Your task to perform on an android device: Set the phone to "Do not disturb". Image 0: 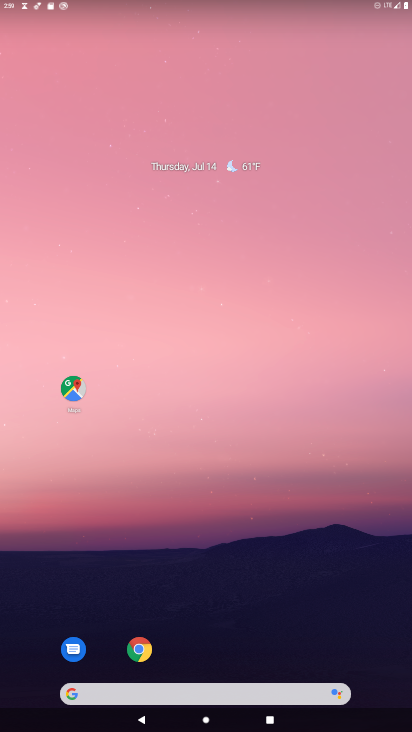
Step 0: drag from (193, 677) to (410, 454)
Your task to perform on an android device: Set the phone to "Do not disturb". Image 1: 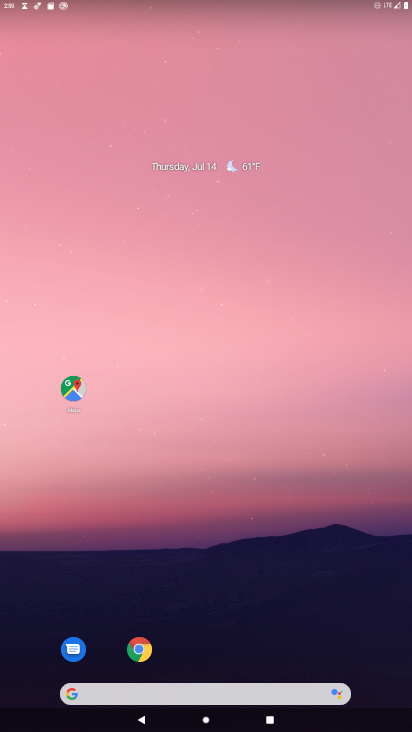
Step 1: click (208, 391)
Your task to perform on an android device: Set the phone to "Do not disturb". Image 2: 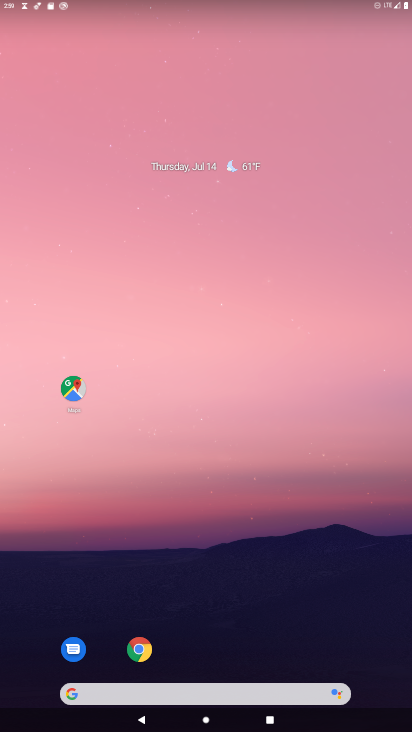
Step 2: drag from (249, 679) to (247, 84)
Your task to perform on an android device: Set the phone to "Do not disturb". Image 3: 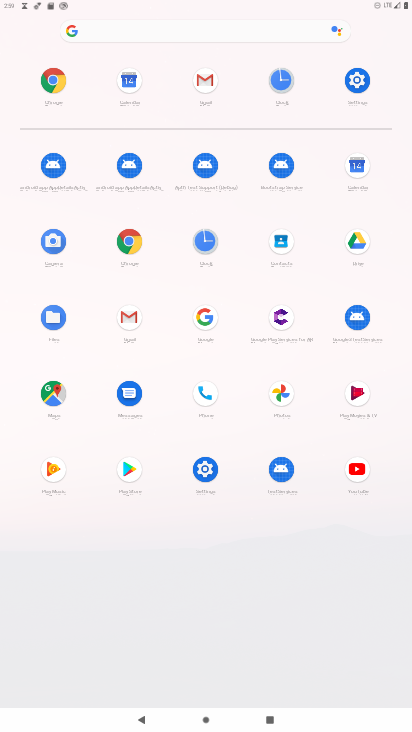
Step 3: click (350, 79)
Your task to perform on an android device: Set the phone to "Do not disturb". Image 4: 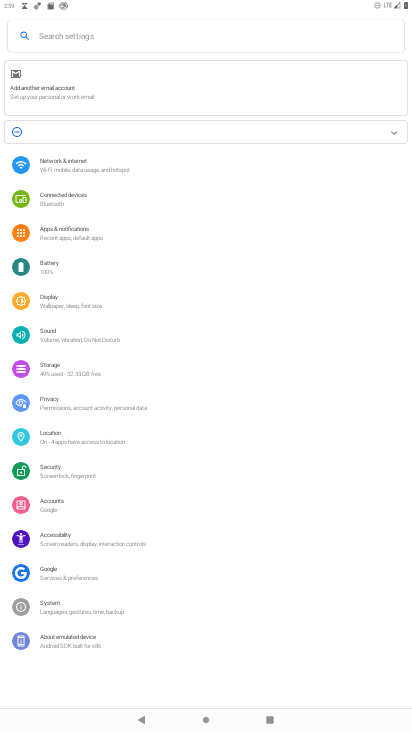
Step 4: click (78, 336)
Your task to perform on an android device: Set the phone to "Do not disturb". Image 5: 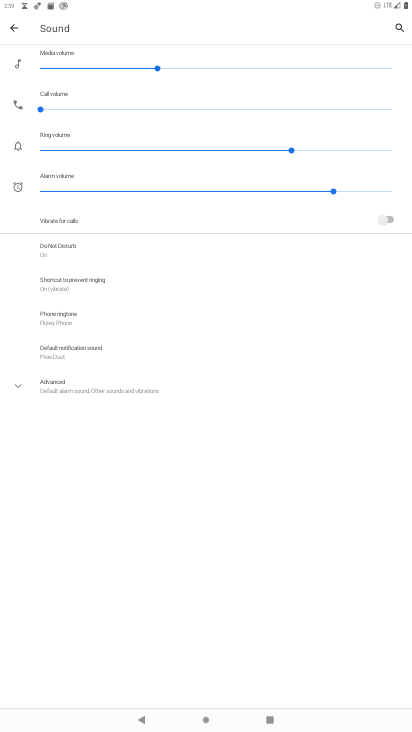
Step 5: click (68, 243)
Your task to perform on an android device: Set the phone to "Do not disturb". Image 6: 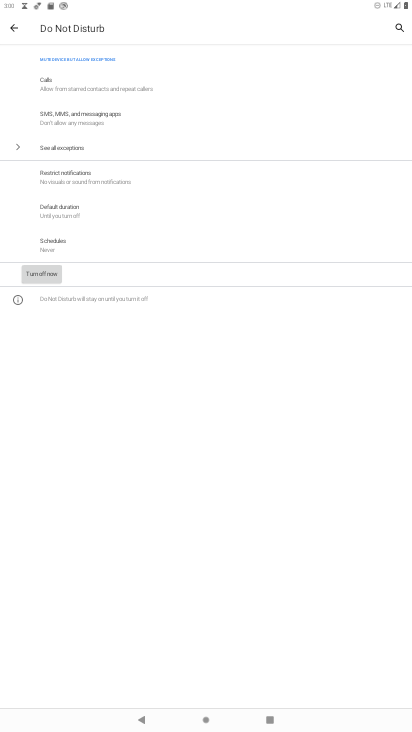
Step 6: task complete